Your task to perform on an android device: turn off improve location accuracy Image 0: 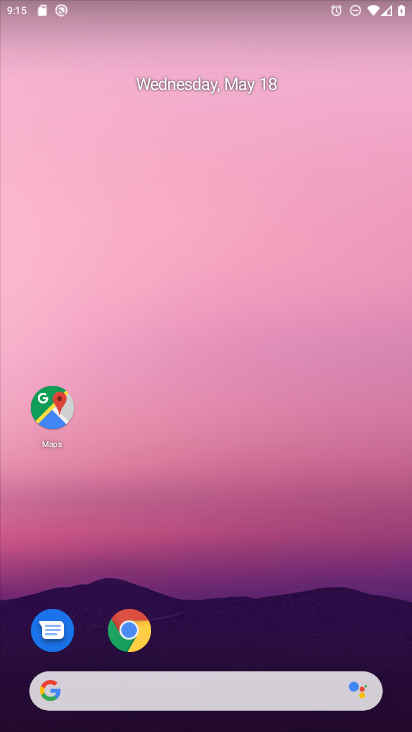
Step 0: drag from (192, 651) to (144, 37)
Your task to perform on an android device: turn off improve location accuracy Image 1: 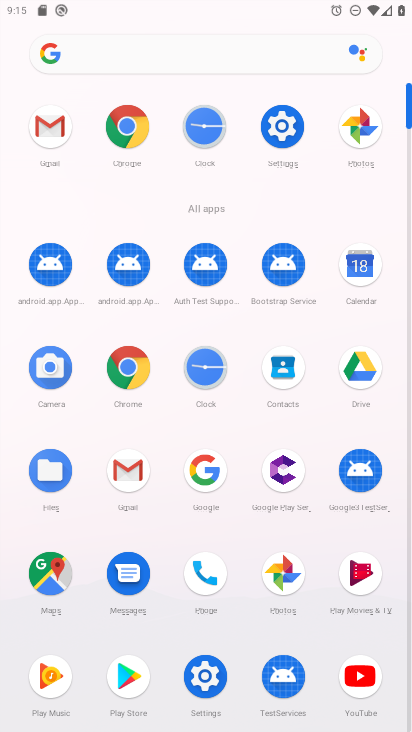
Step 1: click (211, 667)
Your task to perform on an android device: turn off improve location accuracy Image 2: 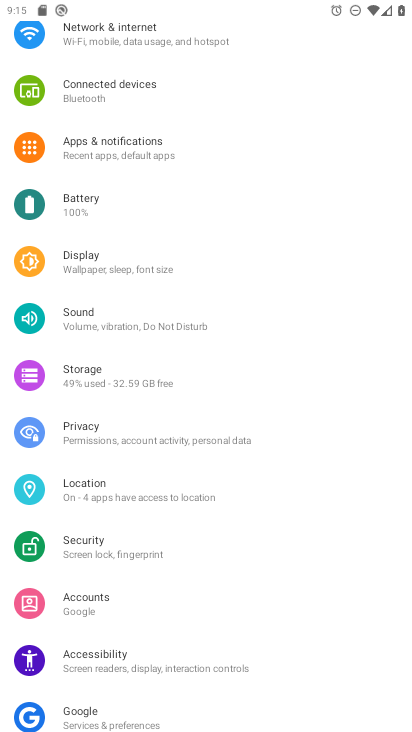
Step 2: click (92, 500)
Your task to perform on an android device: turn off improve location accuracy Image 3: 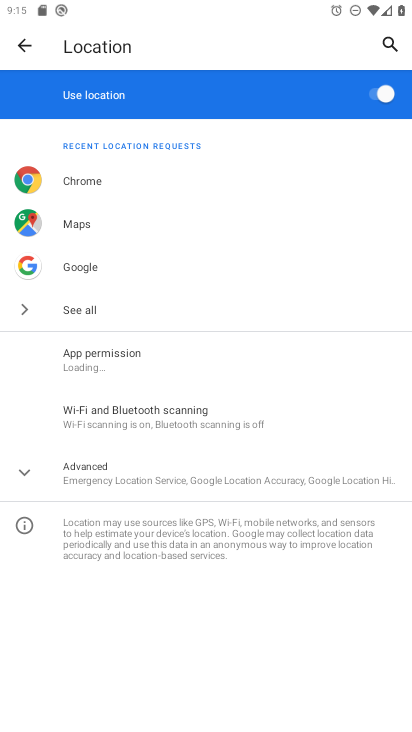
Step 3: click (142, 470)
Your task to perform on an android device: turn off improve location accuracy Image 4: 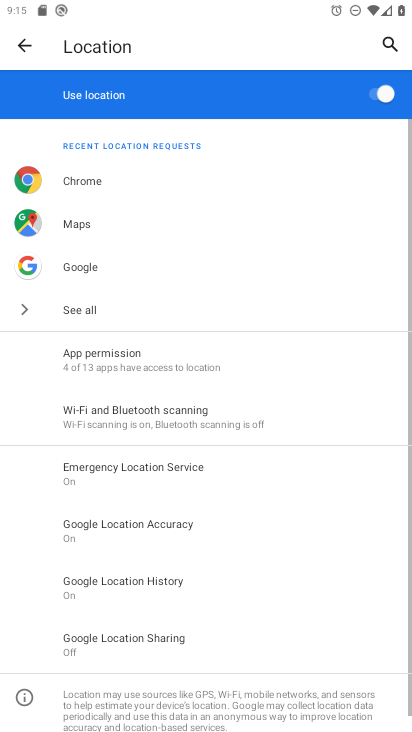
Step 4: click (181, 533)
Your task to perform on an android device: turn off improve location accuracy Image 5: 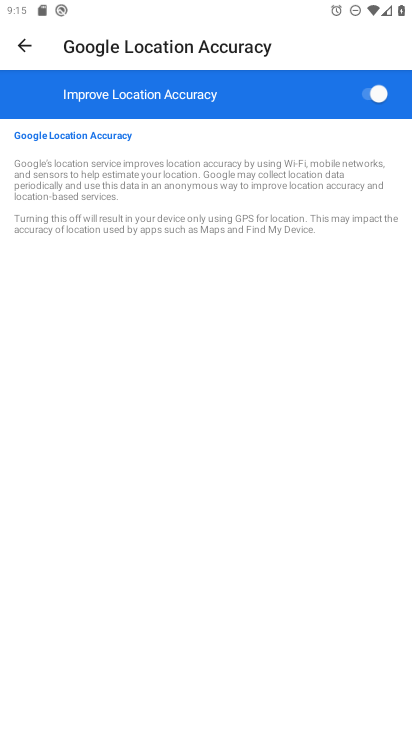
Step 5: click (369, 106)
Your task to perform on an android device: turn off improve location accuracy Image 6: 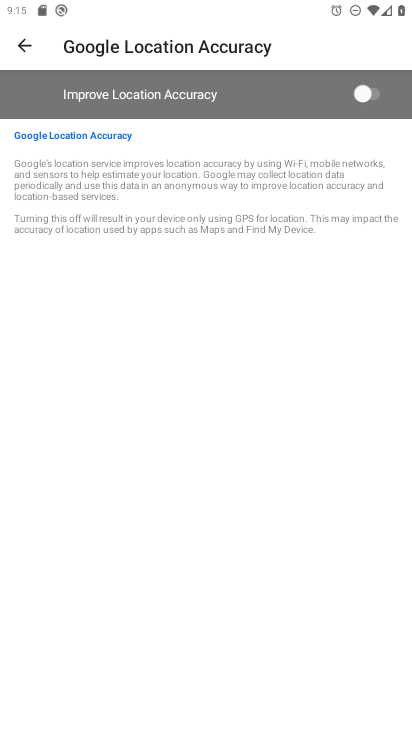
Step 6: task complete